Your task to perform on an android device: Search for vegetarian restaurants on Maps Image 0: 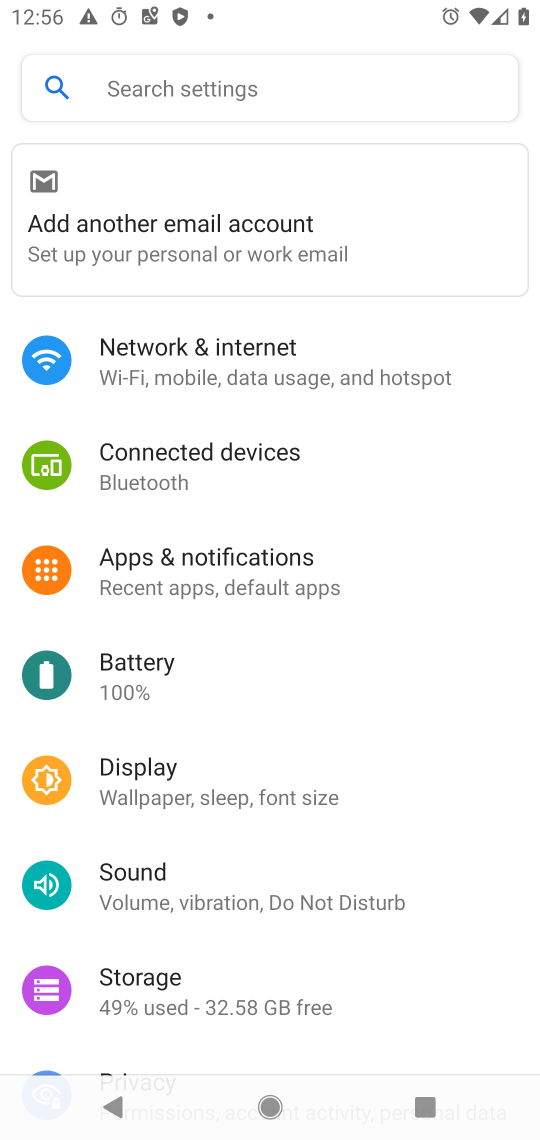
Step 0: press home button
Your task to perform on an android device: Search for vegetarian restaurants on Maps Image 1: 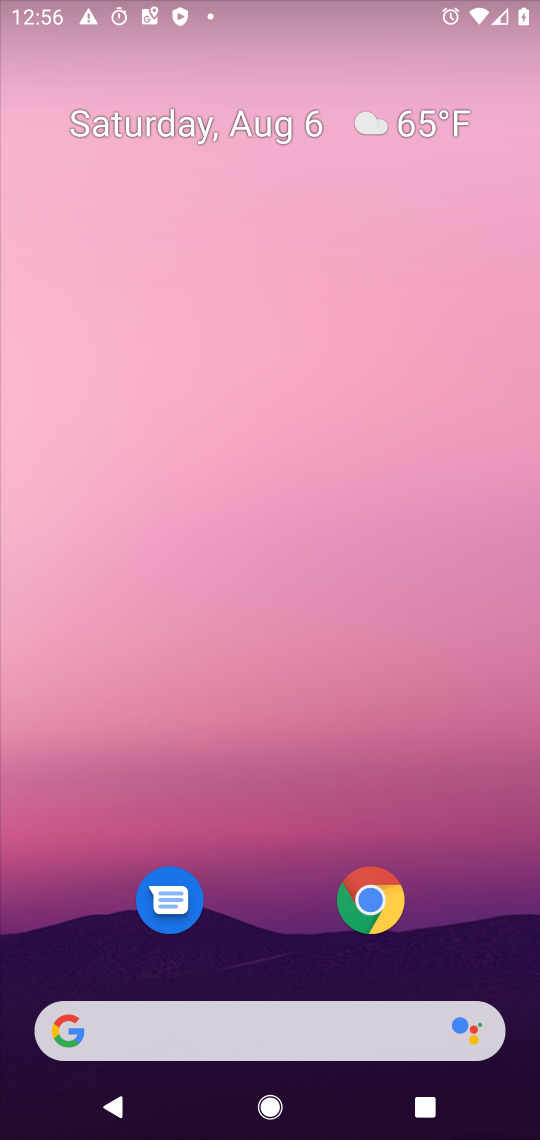
Step 1: drag from (258, 973) to (250, 51)
Your task to perform on an android device: Search for vegetarian restaurants on Maps Image 2: 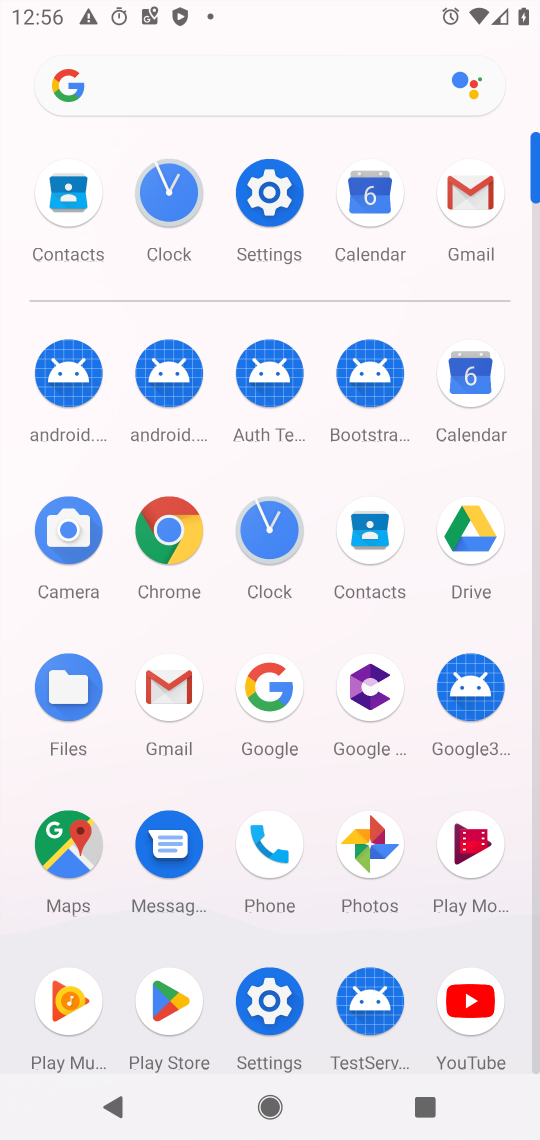
Step 2: click (56, 843)
Your task to perform on an android device: Search for vegetarian restaurants on Maps Image 3: 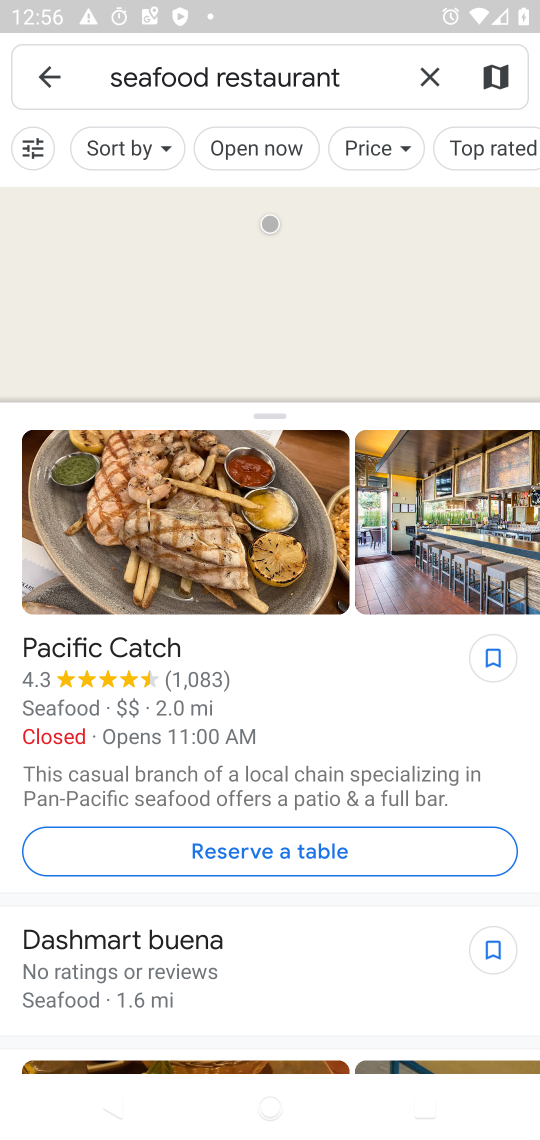
Step 3: click (423, 73)
Your task to perform on an android device: Search for vegetarian restaurants on Maps Image 4: 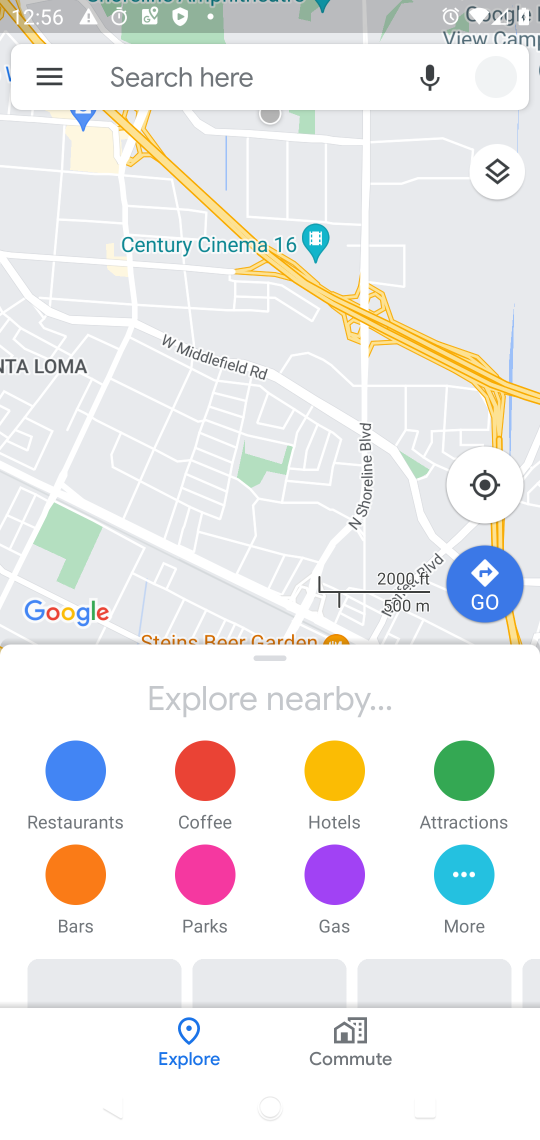
Step 4: click (274, 63)
Your task to perform on an android device: Search for vegetarian restaurants on Maps Image 5: 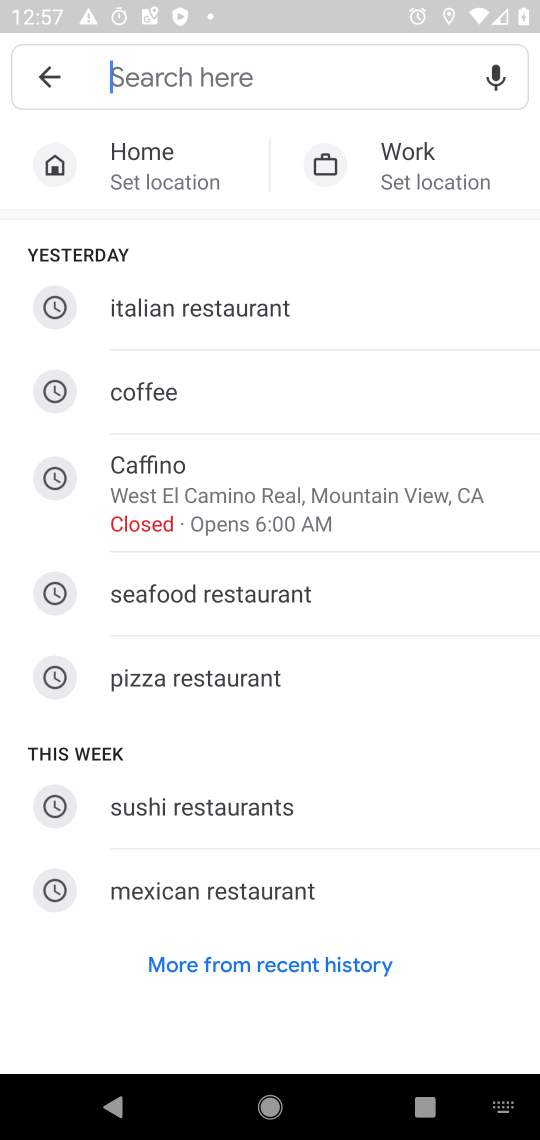
Step 5: type "vegetarian restaurnats"
Your task to perform on an android device: Search for vegetarian restaurants on Maps Image 6: 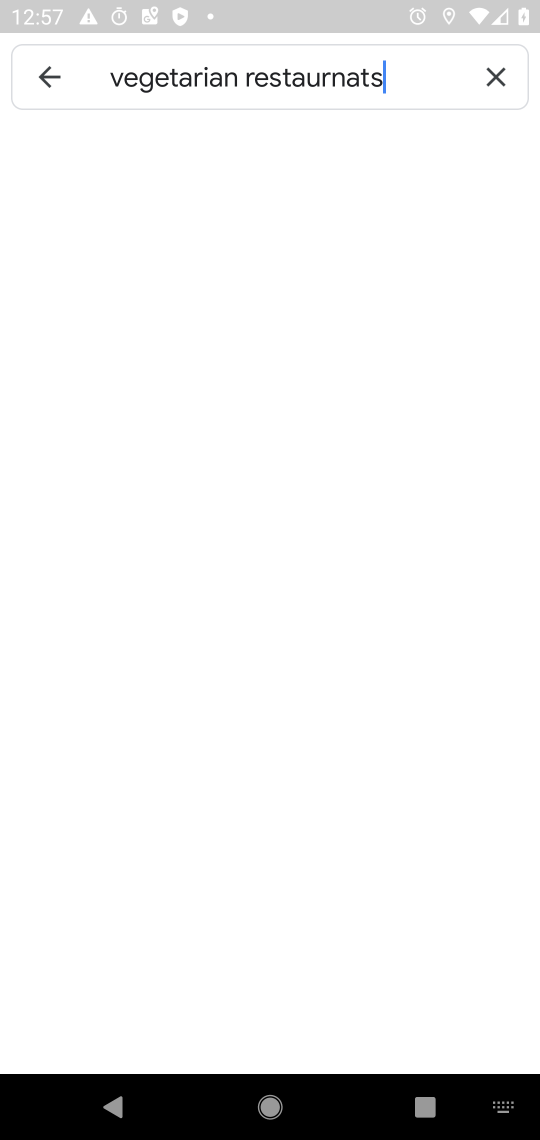
Step 6: type ""
Your task to perform on an android device: Search for vegetarian restaurants on Maps Image 7: 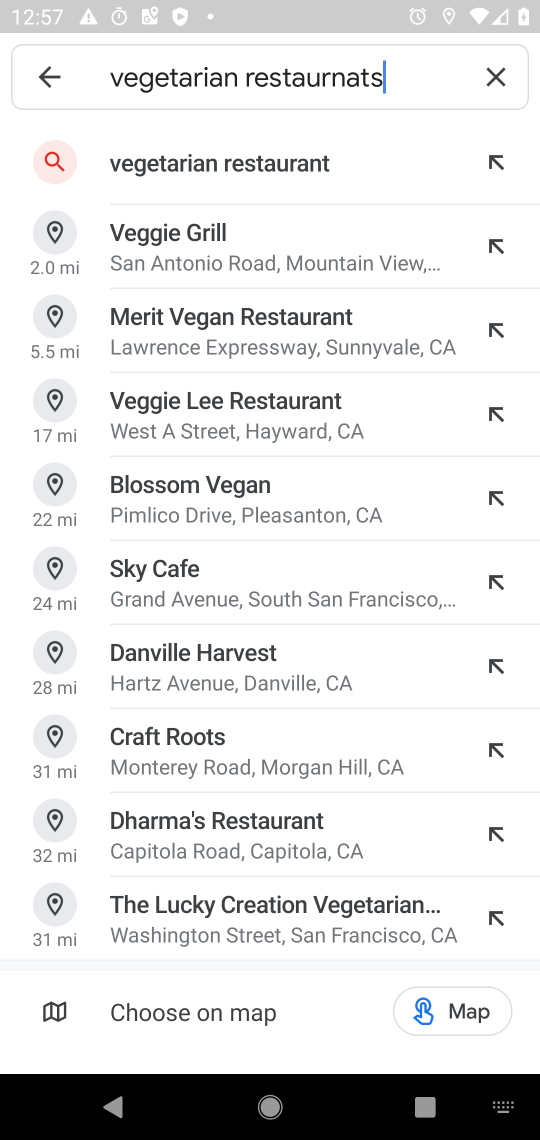
Step 7: click (242, 167)
Your task to perform on an android device: Search for vegetarian restaurants on Maps Image 8: 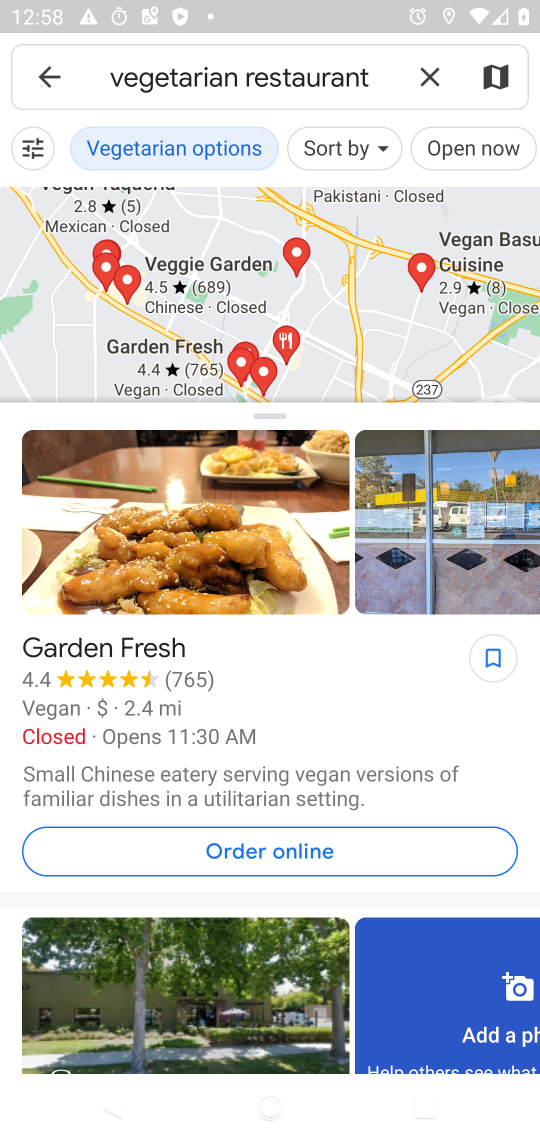
Step 8: task complete